Your task to perform on an android device: clear all cookies in the chrome app Image 0: 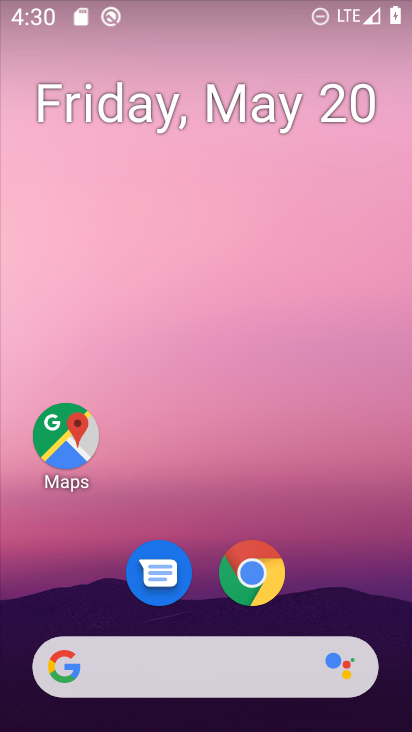
Step 0: click (257, 567)
Your task to perform on an android device: clear all cookies in the chrome app Image 1: 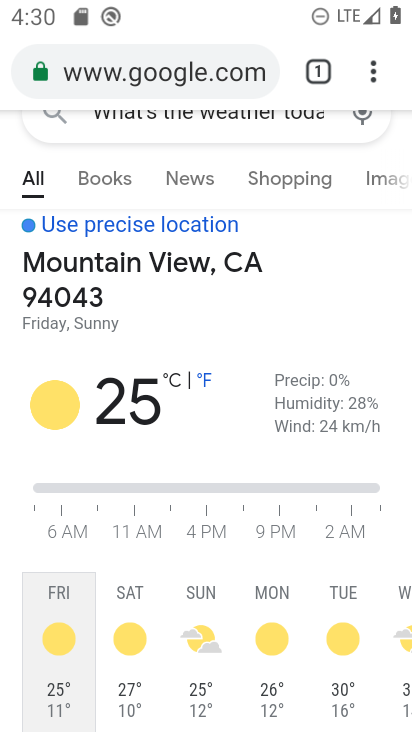
Step 1: click (373, 80)
Your task to perform on an android device: clear all cookies in the chrome app Image 2: 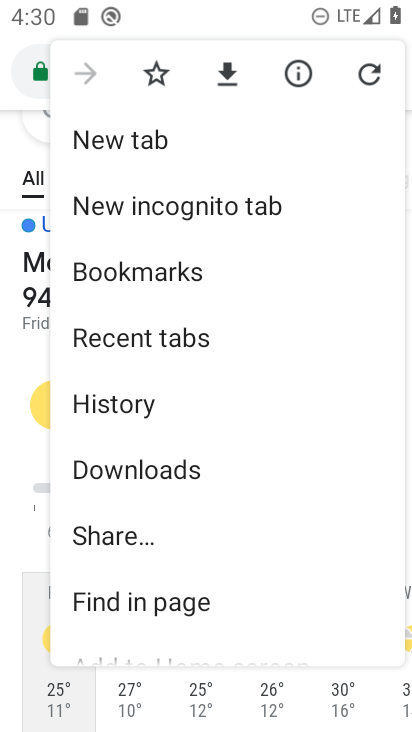
Step 2: click (205, 401)
Your task to perform on an android device: clear all cookies in the chrome app Image 3: 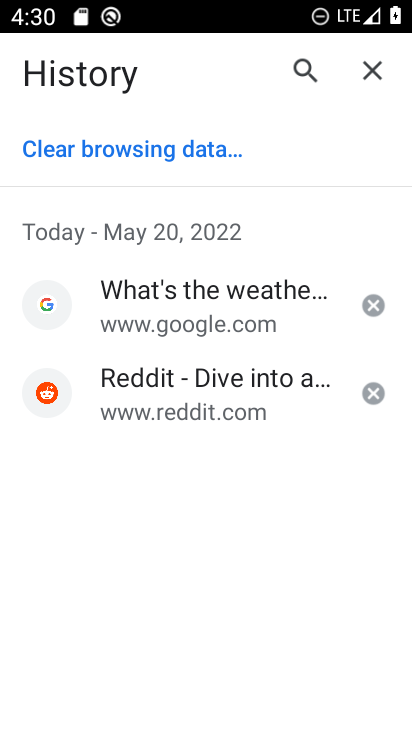
Step 3: click (166, 152)
Your task to perform on an android device: clear all cookies in the chrome app Image 4: 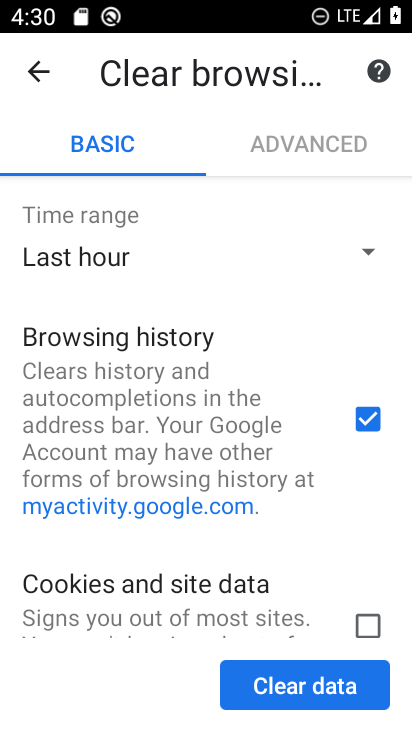
Step 4: click (375, 618)
Your task to perform on an android device: clear all cookies in the chrome app Image 5: 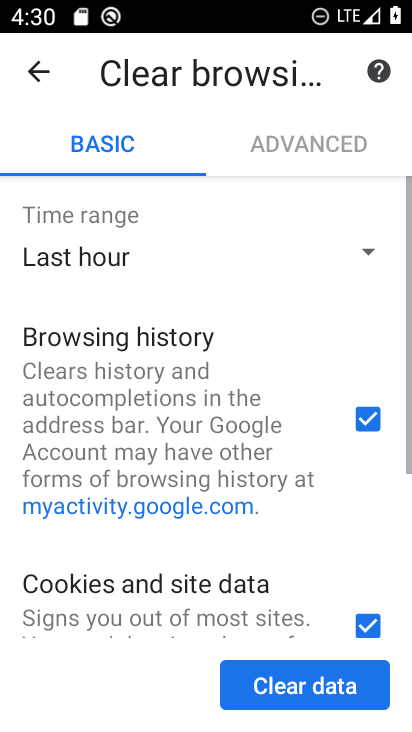
Step 5: click (359, 413)
Your task to perform on an android device: clear all cookies in the chrome app Image 6: 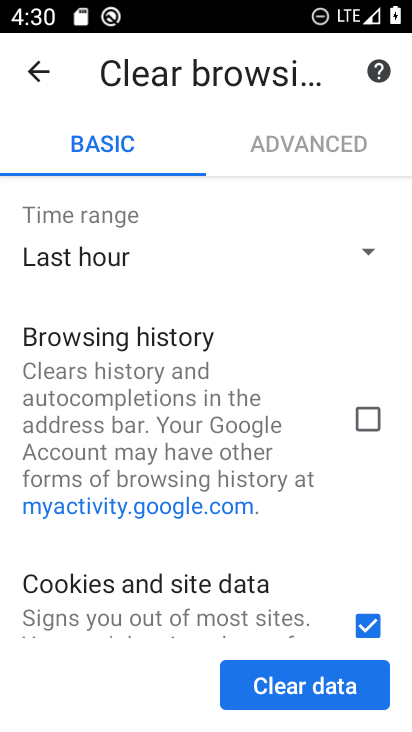
Step 6: click (369, 685)
Your task to perform on an android device: clear all cookies in the chrome app Image 7: 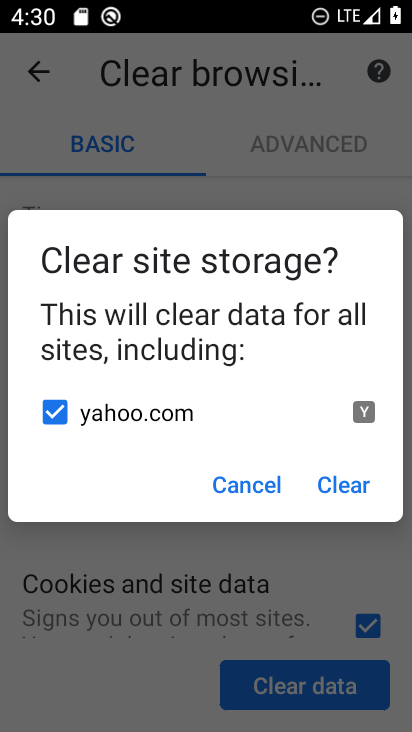
Step 7: click (356, 476)
Your task to perform on an android device: clear all cookies in the chrome app Image 8: 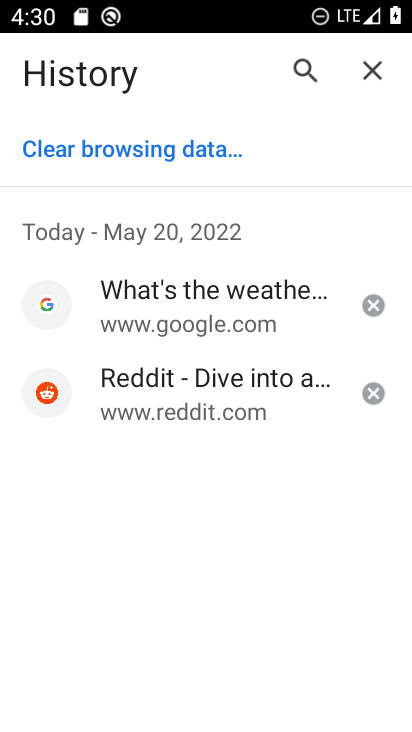
Step 8: task complete